Your task to perform on an android device: Open the phone app and click the voicemail tab. Image 0: 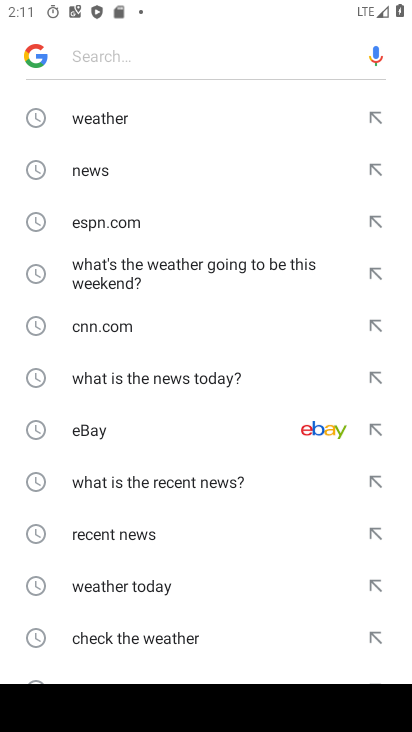
Step 0: press home button
Your task to perform on an android device: Open the phone app and click the voicemail tab. Image 1: 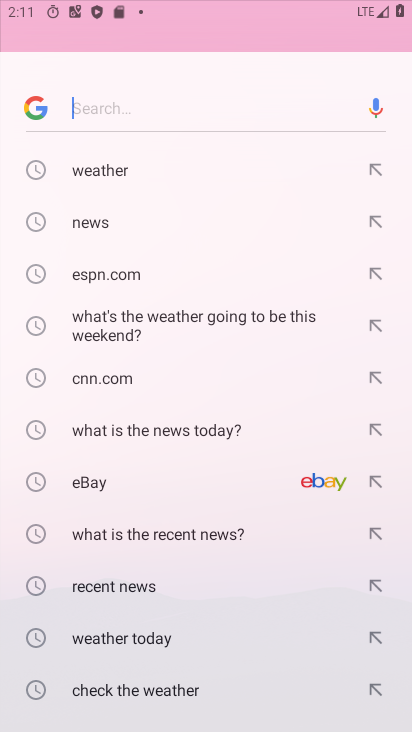
Step 1: drag from (322, 467) to (387, 0)
Your task to perform on an android device: Open the phone app and click the voicemail tab. Image 2: 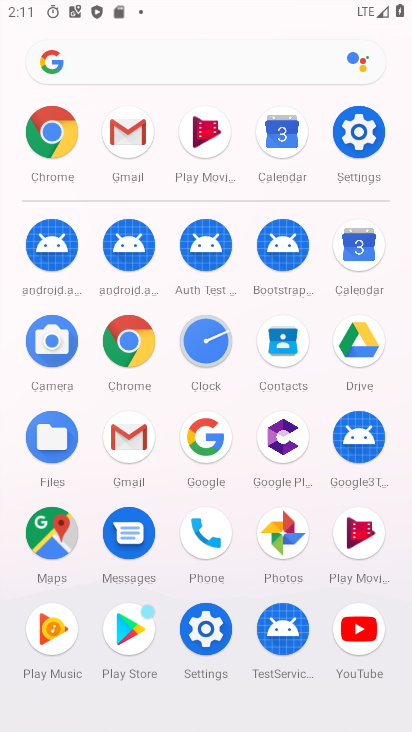
Step 2: click (210, 542)
Your task to perform on an android device: Open the phone app and click the voicemail tab. Image 3: 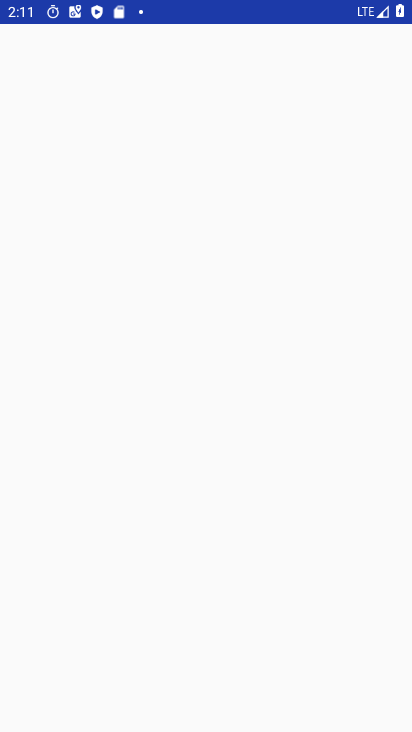
Step 3: drag from (298, 303) to (323, 97)
Your task to perform on an android device: Open the phone app and click the voicemail tab. Image 4: 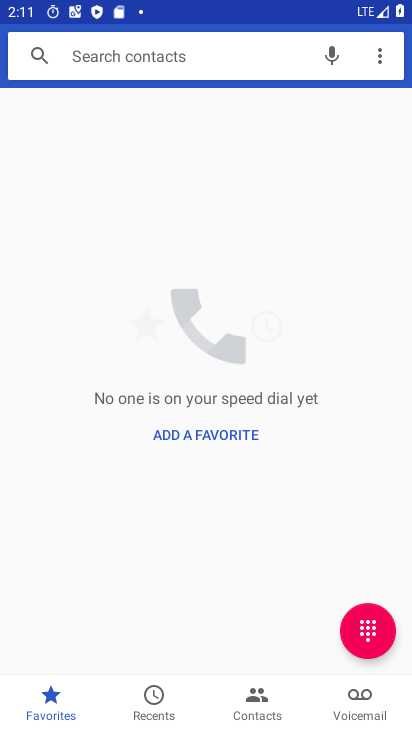
Step 4: drag from (289, 390) to (307, 53)
Your task to perform on an android device: Open the phone app and click the voicemail tab. Image 5: 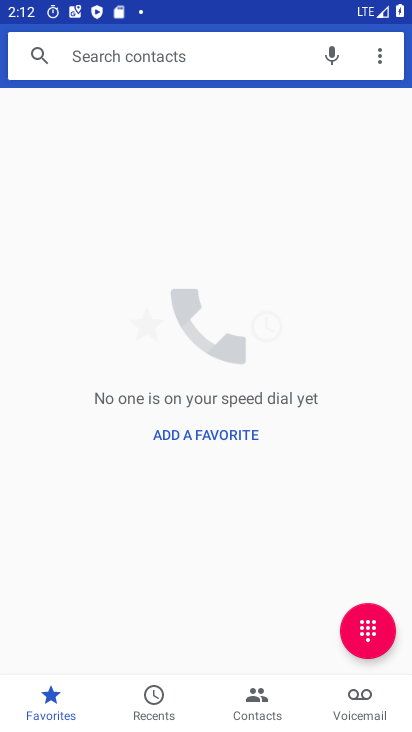
Step 5: click (355, 691)
Your task to perform on an android device: Open the phone app and click the voicemail tab. Image 6: 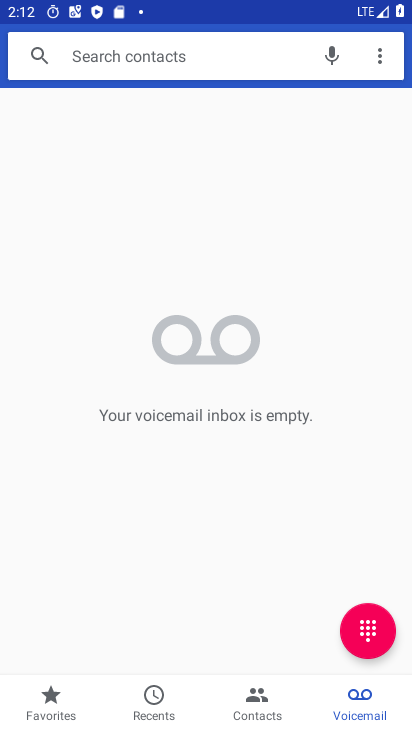
Step 6: task complete